Your task to perform on an android device: uninstall "Google Keep" Image 0: 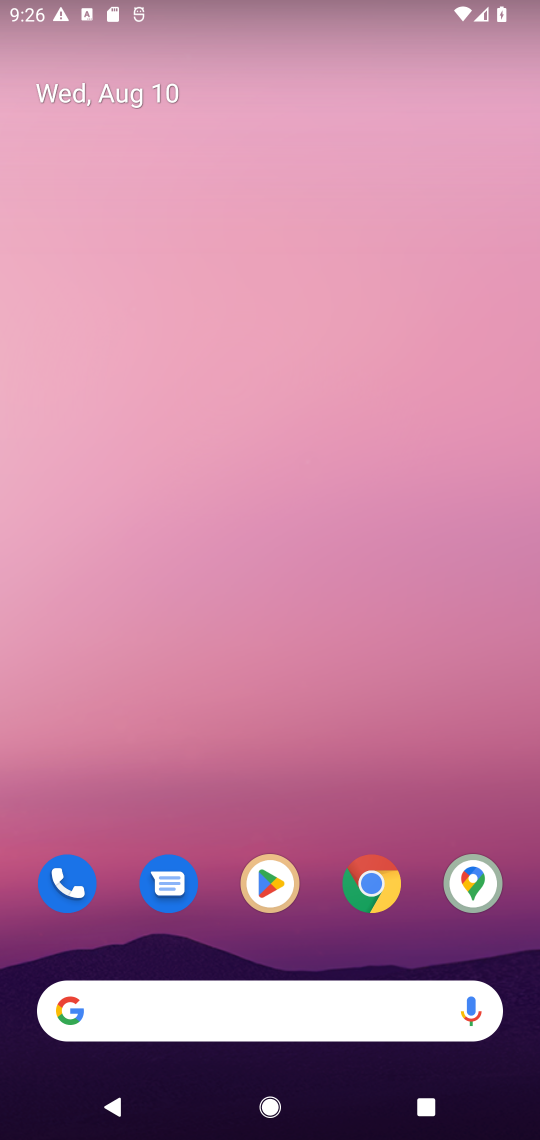
Step 0: drag from (320, 957) to (310, 7)
Your task to perform on an android device: uninstall "Google Keep" Image 1: 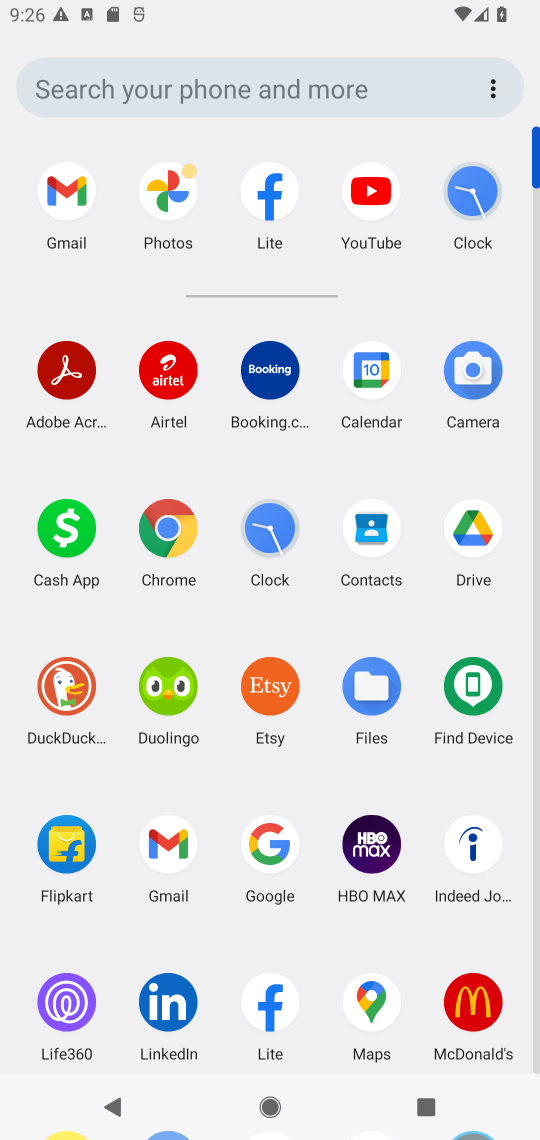
Step 1: drag from (326, 943) to (313, 278)
Your task to perform on an android device: uninstall "Google Keep" Image 2: 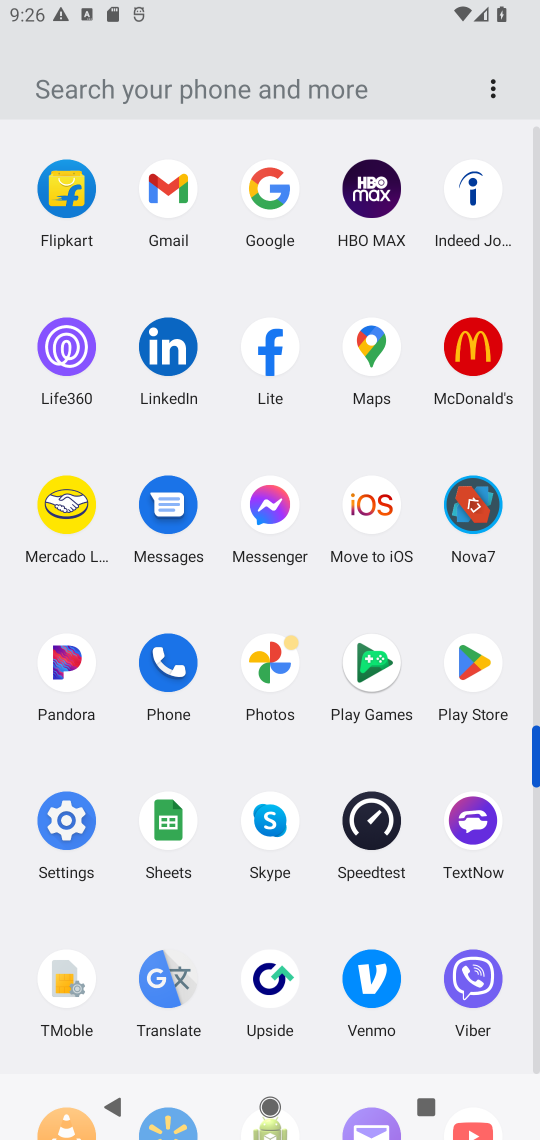
Step 2: drag from (318, 979) to (317, 379)
Your task to perform on an android device: uninstall "Google Keep" Image 3: 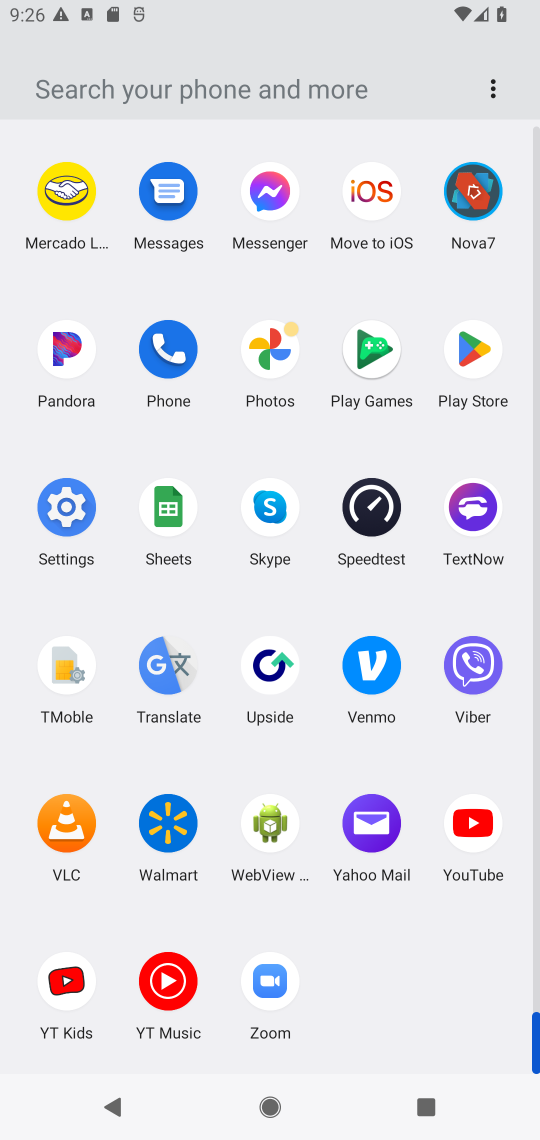
Step 3: click (473, 343)
Your task to perform on an android device: uninstall "Google Keep" Image 4: 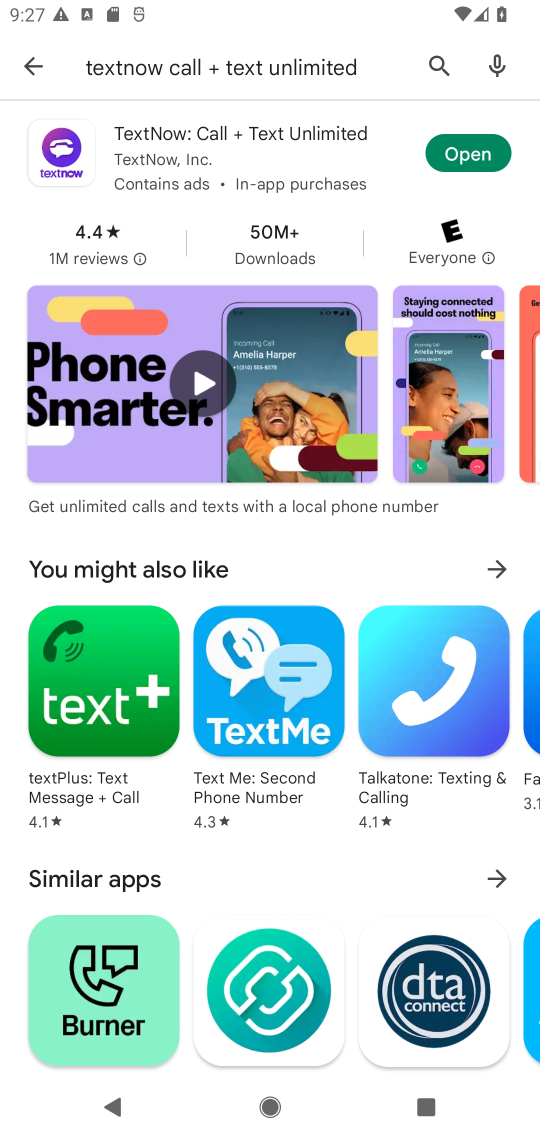
Step 4: click (431, 55)
Your task to perform on an android device: uninstall "Google Keep" Image 5: 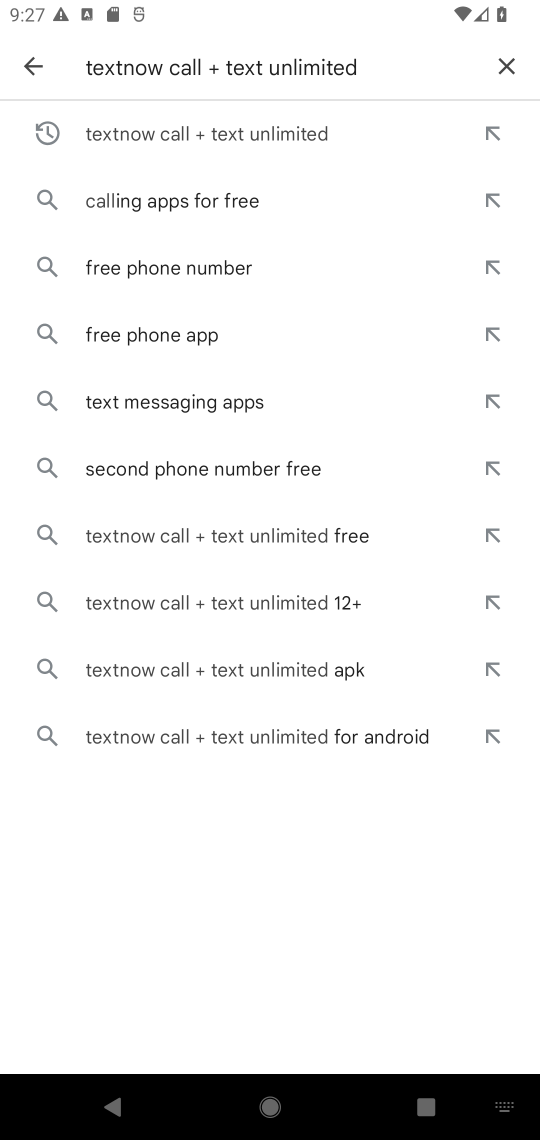
Step 5: click (502, 57)
Your task to perform on an android device: uninstall "Google Keep" Image 6: 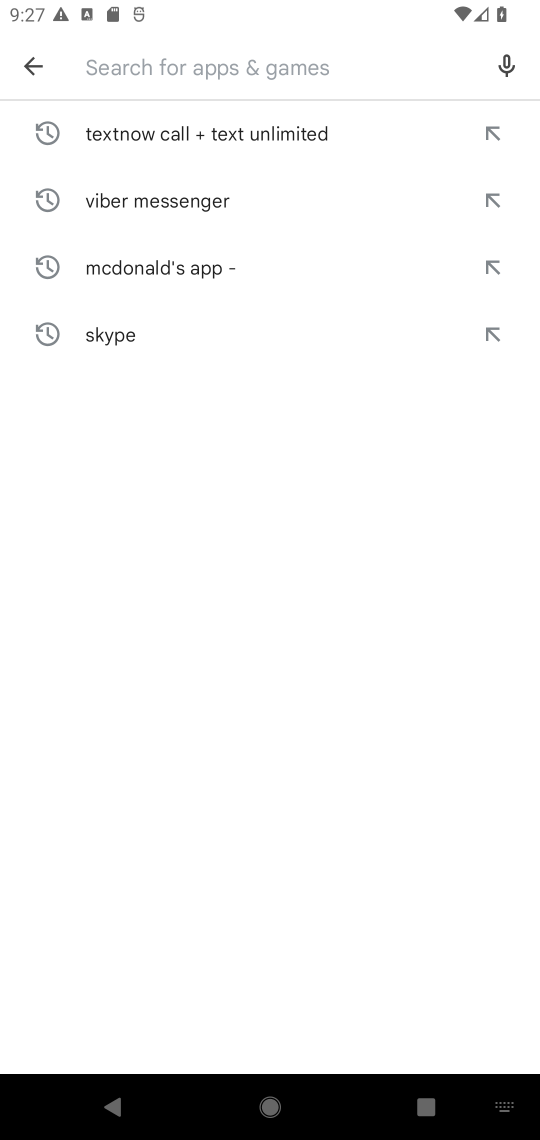
Step 6: type "Google Keep"
Your task to perform on an android device: uninstall "Google Keep" Image 7: 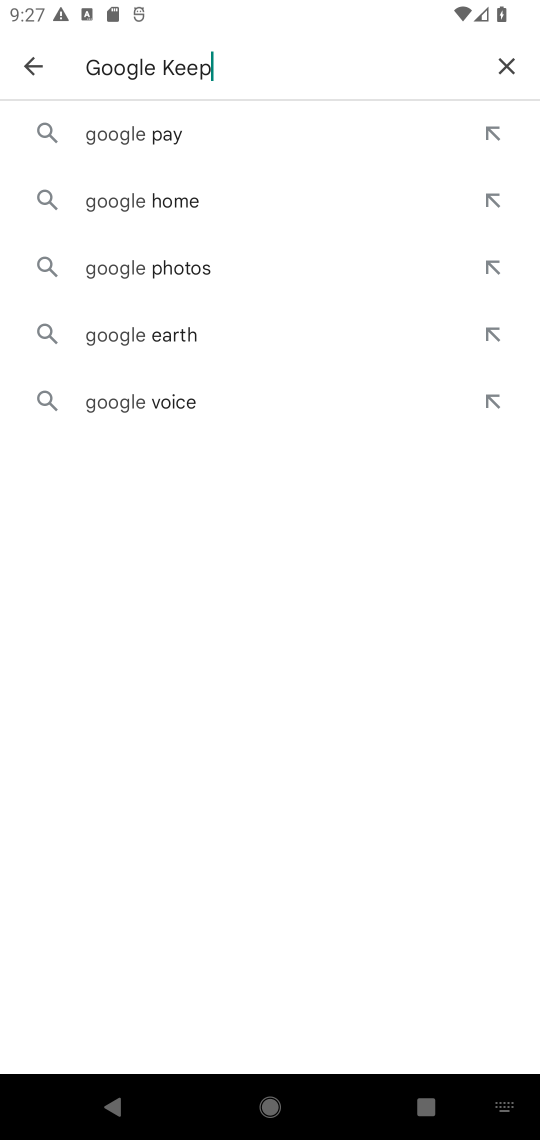
Step 7: type ""
Your task to perform on an android device: uninstall "Google Keep" Image 8: 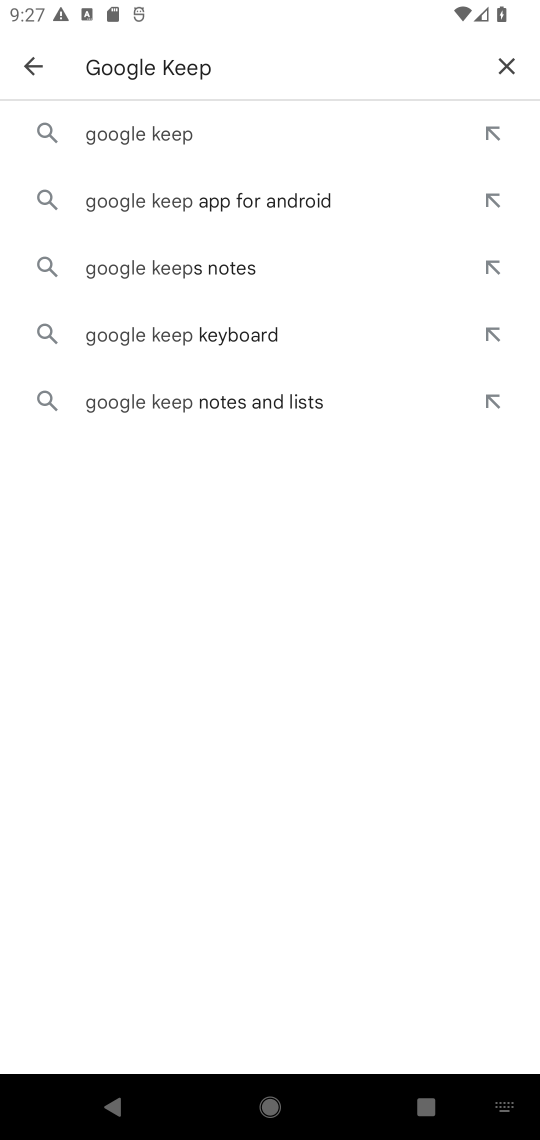
Step 8: click (166, 132)
Your task to perform on an android device: uninstall "Google Keep" Image 9: 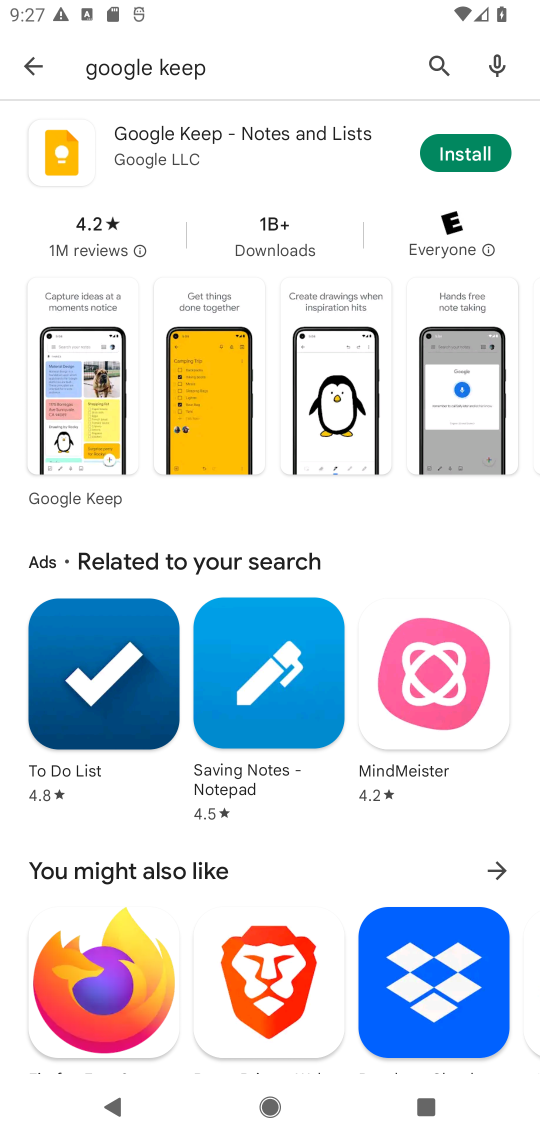
Step 9: click (266, 136)
Your task to perform on an android device: uninstall "Google Keep" Image 10: 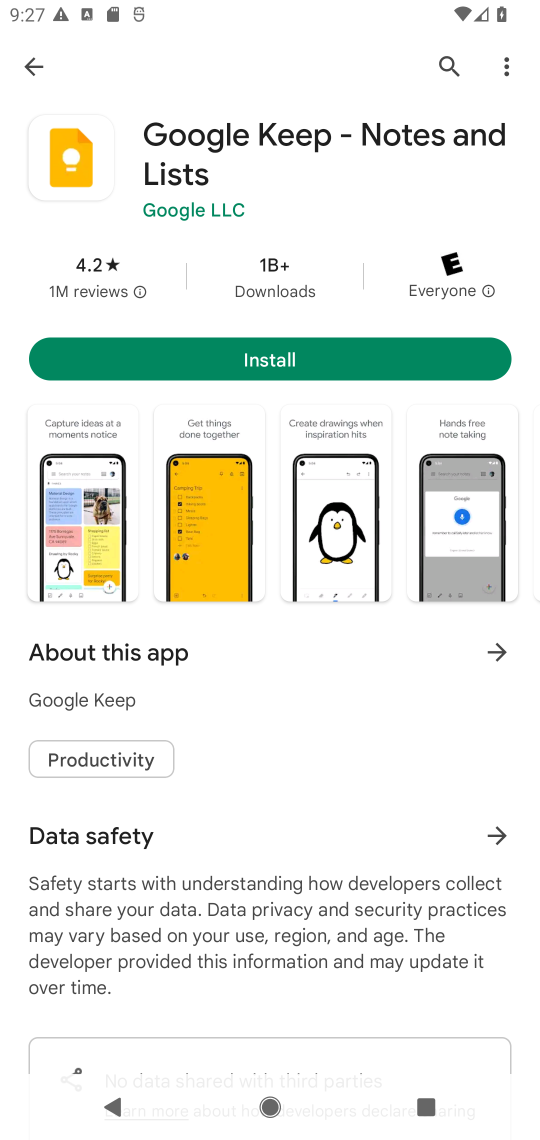
Step 10: task complete